Your task to perform on an android device: turn on airplane mode Image 0: 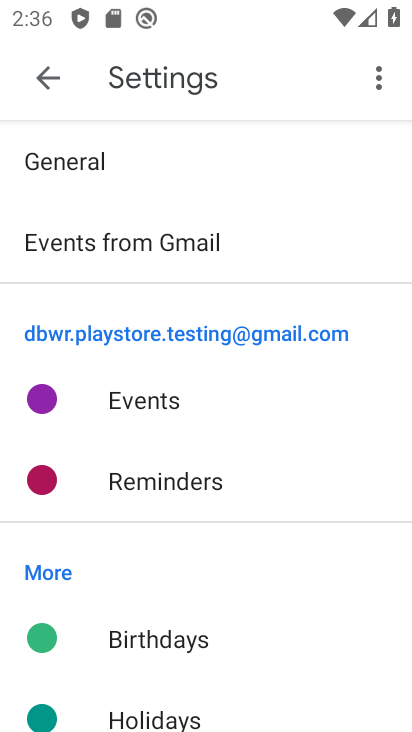
Step 0: press home button
Your task to perform on an android device: turn on airplane mode Image 1: 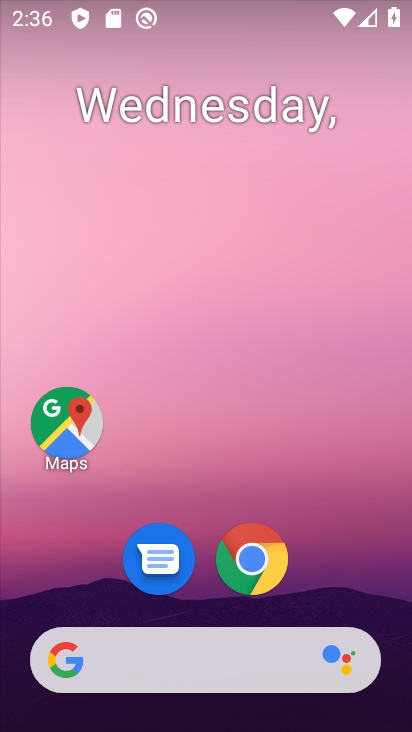
Step 1: drag from (201, 727) to (204, 65)
Your task to perform on an android device: turn on airplane mode Image 2: 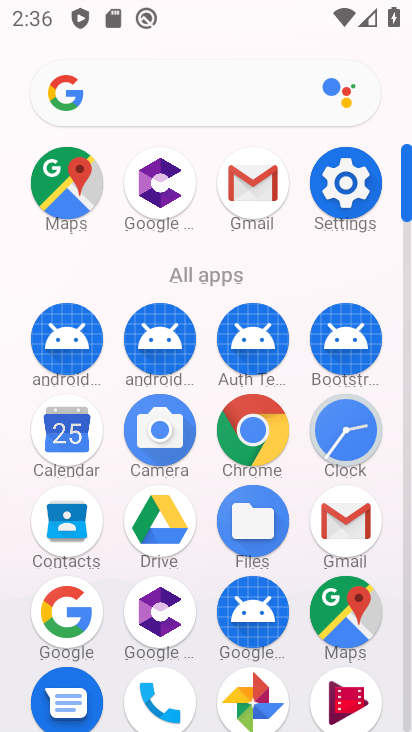
Step 2: click (351, 191)
Your task to perform on an android device: turn on airplane mode Image 3: 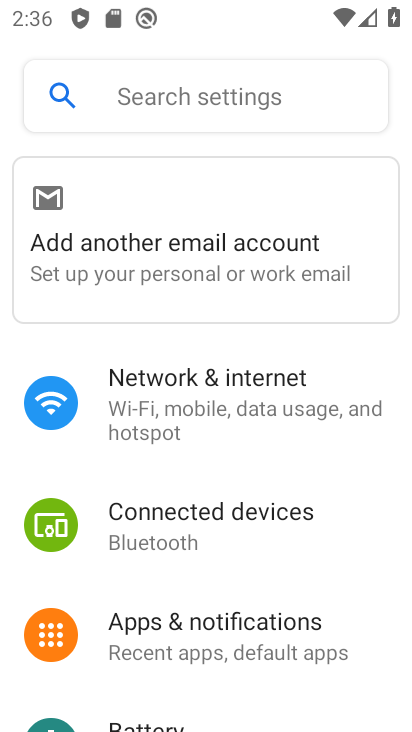
Step 3: click (164, 402)
Your task to perform on an android device: turn on airplane mode Image 4: 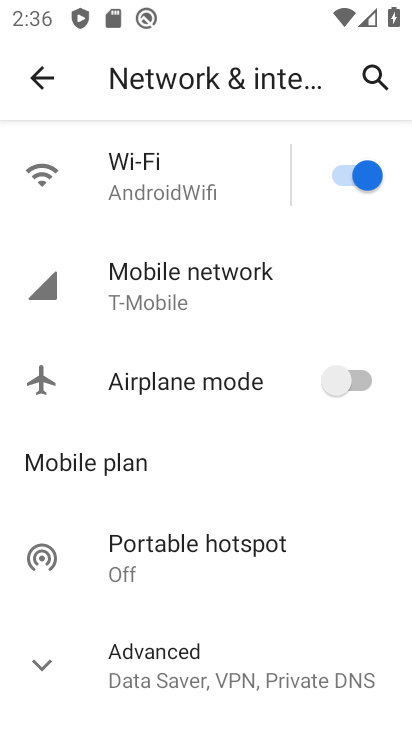
Step 4: click (359, 379)
Your task to perform on an android device: turn on airplane mode Image 5: 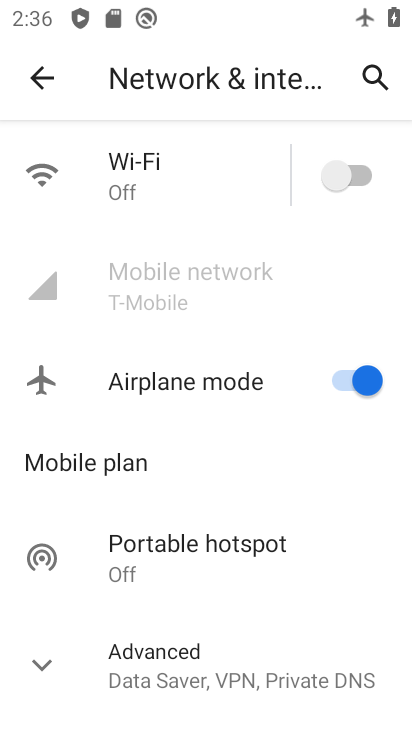
Step 5: task complete